Your task to perform on an android device: Find coffee shops on Maps Image 0: 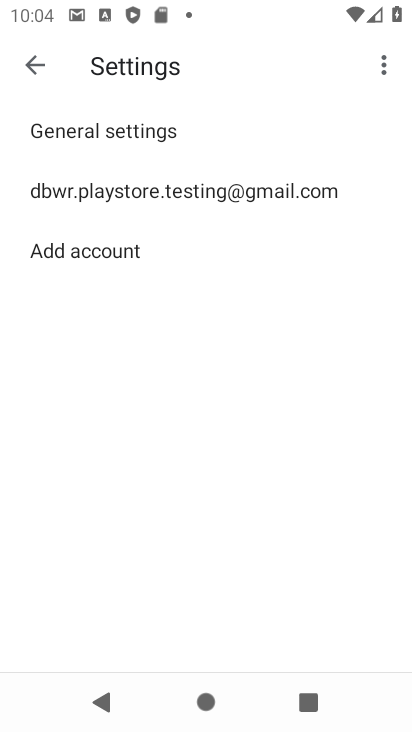
Step 0: press home button
Your task to perform on an android device: Find coffee shops on Maps Image 1: 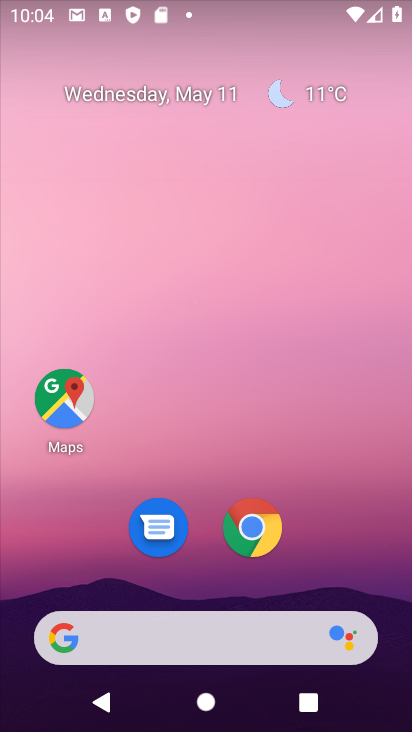
Step 1: drag from (322, 524) to (340, 50)
Your task to perform on an android device: Find coffee shops on Maps Image 2: 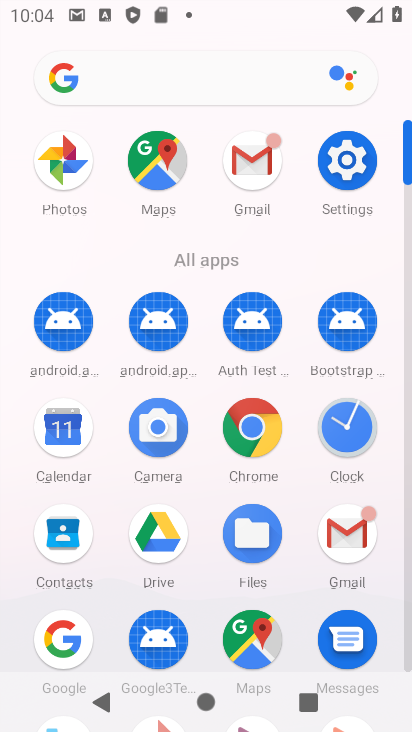
Step 2: click (171, 155)
Your task to perform on an android device: Find coffee shops on Maps Image 3: 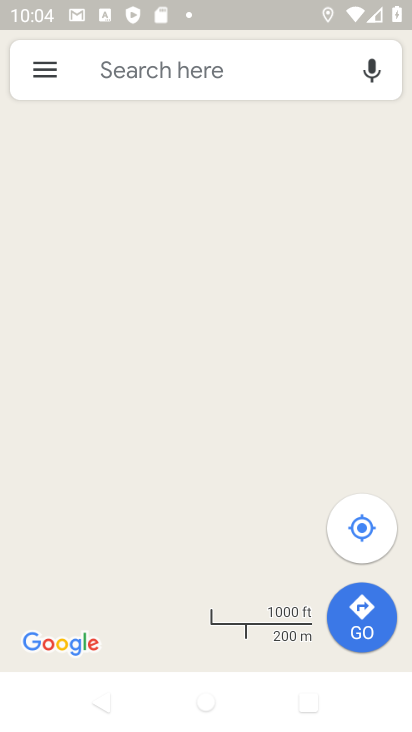
Step 3: click (215, 61)
Your task to perform on an android device: Find coffee shops on Maps Image 4: 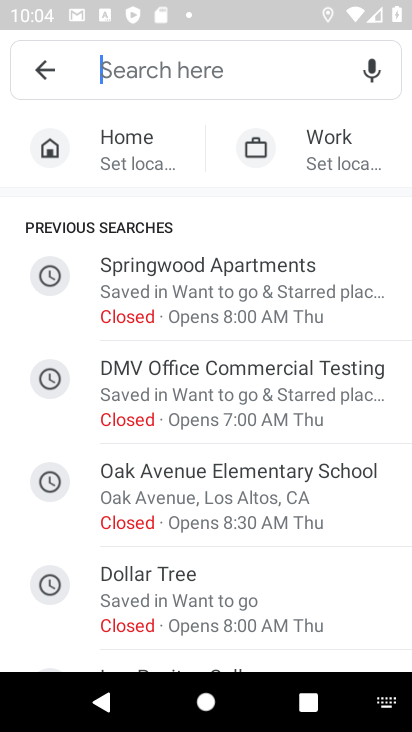
Step 4: type "coffee shops "
Your task to perform on an android device: Find coffee shops on Maps Image 5: 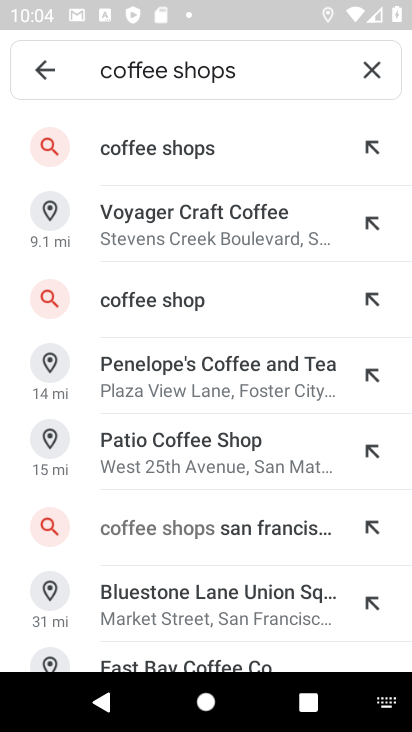
Step 5: click (156, 153)
Your task to perform on an android device: Find coffee shops on Maps Image 6: 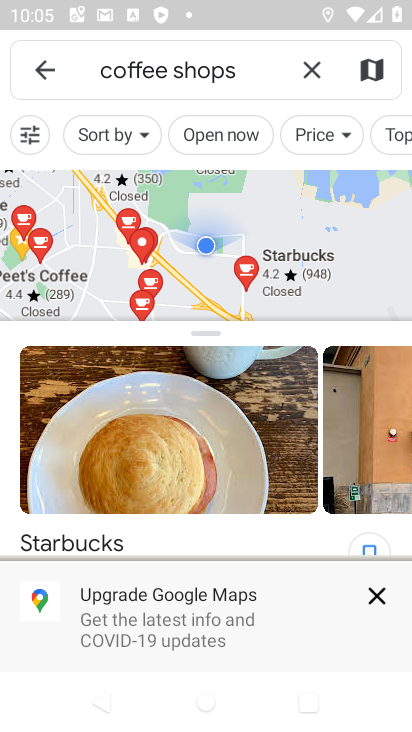
Step 6: task complete